Your task to perform on an android device: set the timer Image 0: 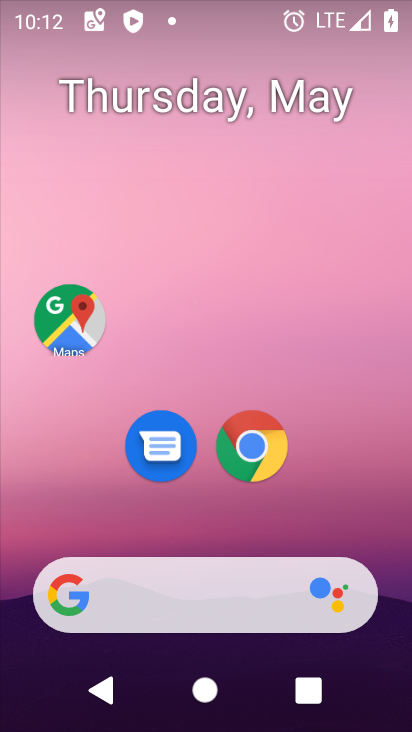
Step 0: drag from (398, 608) to (331, 144)
Your task to perform on an android device: set the timer Image 1: 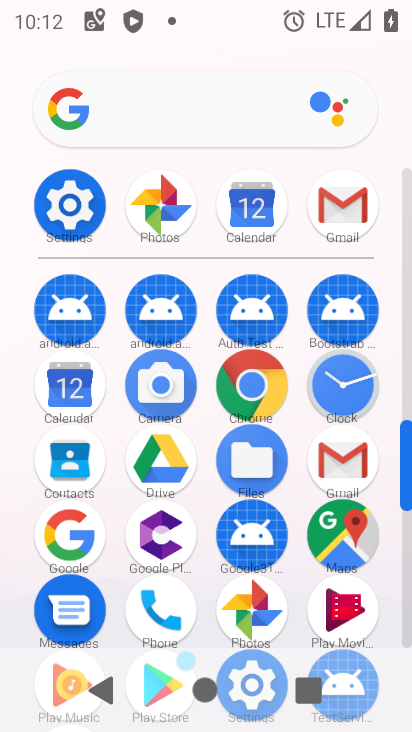
Step 1: click (404, 628)
Your task to perform on an android device: set the timer Image 2: 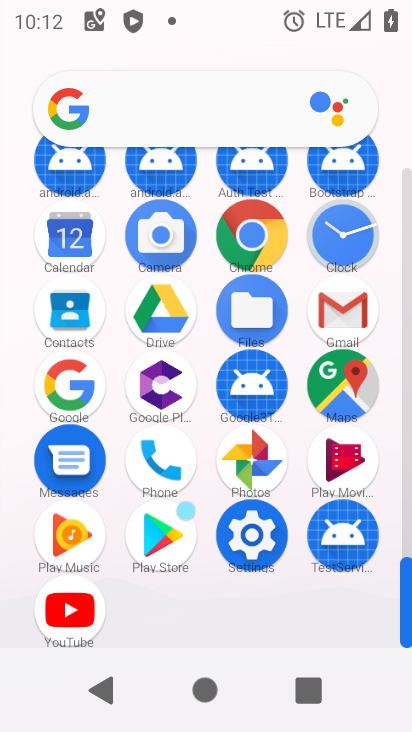
Step 2: click (344, 227)
Your task to perform on an android device: set the timer Image 3: 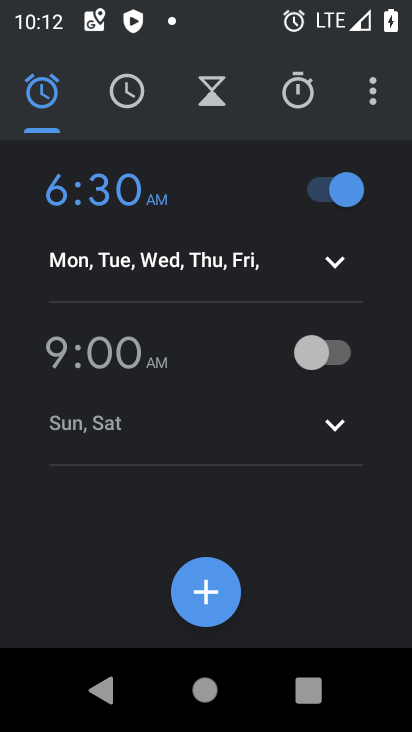
Step 3: click (297, 95)
Your task to perform on an android device: set the timer Image 4: 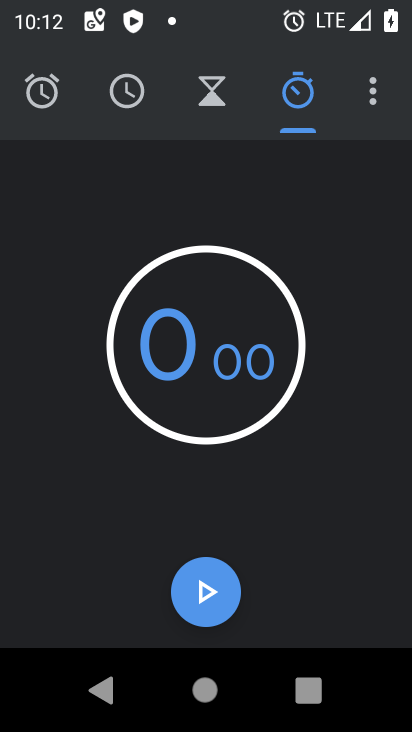
Step 4: click (211, 88)
Your task to perform on an android device: set the timer Image 5: 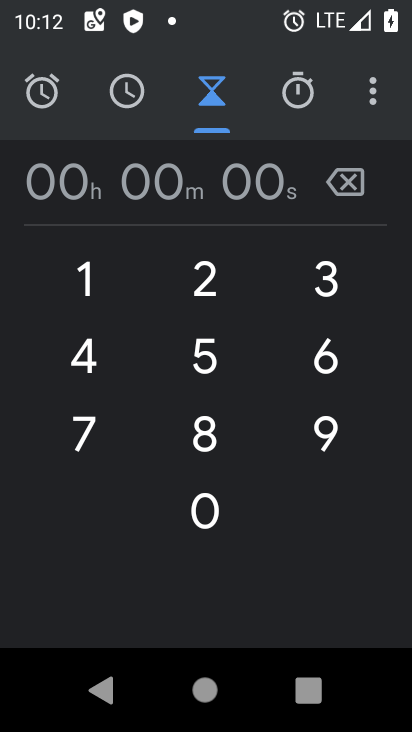
Step 5: click (99, 268)
Your task to perform on an android device: set the timer Image 6: 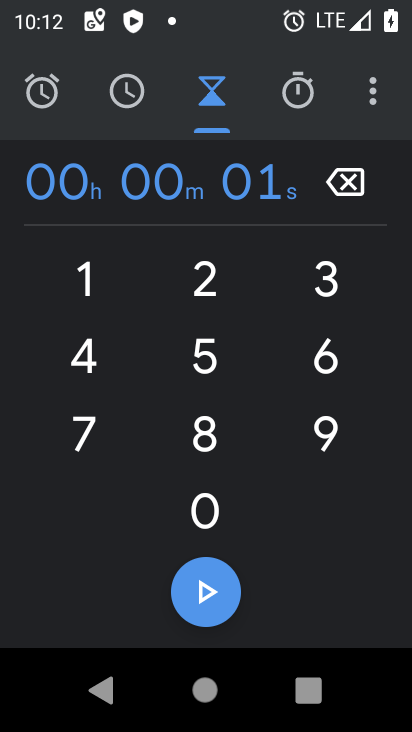
Step 6: click (336, 267)
Your task to perform on an android device: set the timer Image 7: 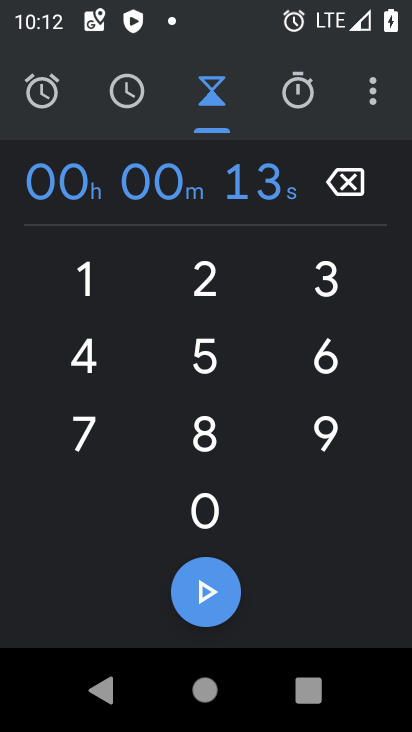
Step 7: click (195, 491)
Your task to perform on an android device: set the timer Image 8: 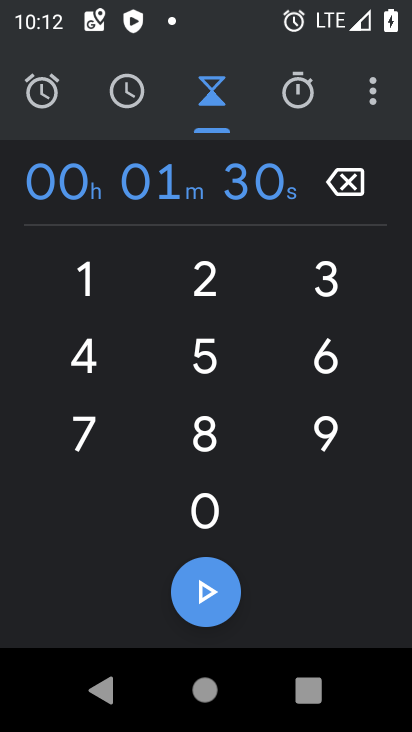
Step 8: click (195, 491)
Your task to perform on an android device: set the timer Image 9: 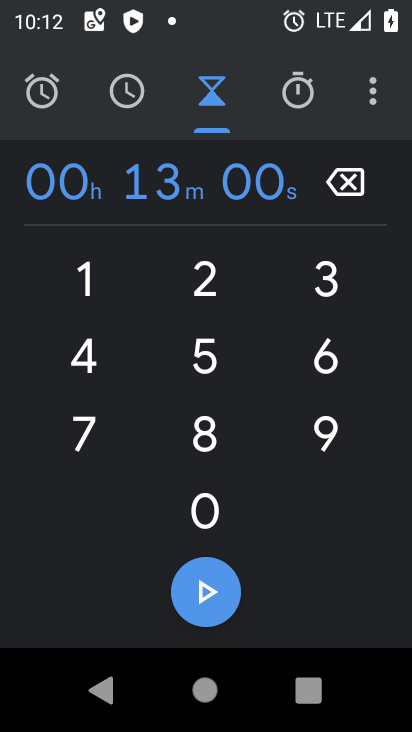
Step 9: click (195, 491)
Your task to perform on an android device: set the timer Image 10: 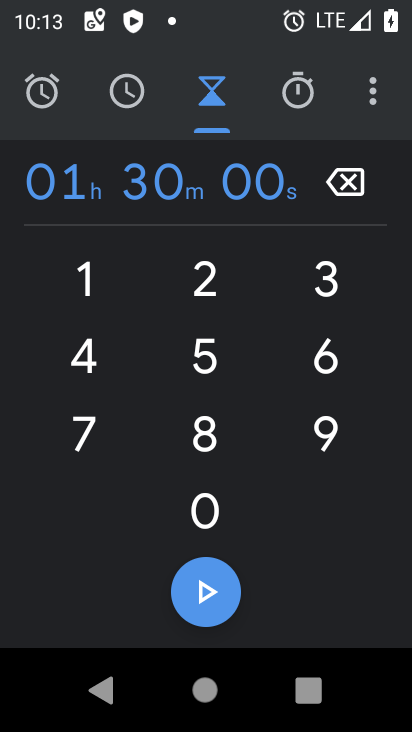
Step 10: task complete